Your task to perform on an android device: Search for vegetarian restaurants on Maps Image 0: 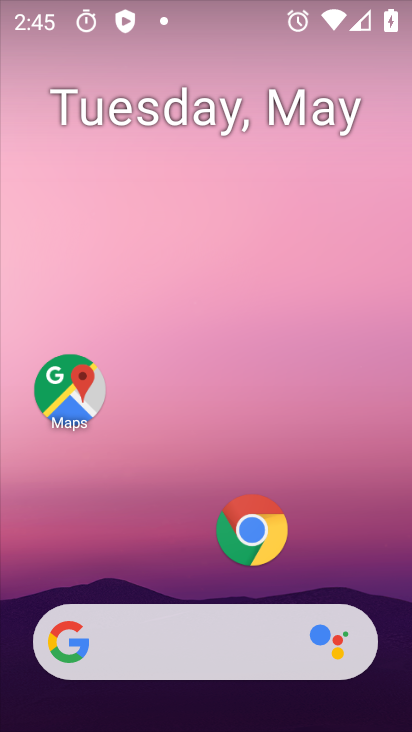
Step 0: click (70, 395)
Your task to perform on an android device: Search for vegetarian restaurants on Maps Image 1: 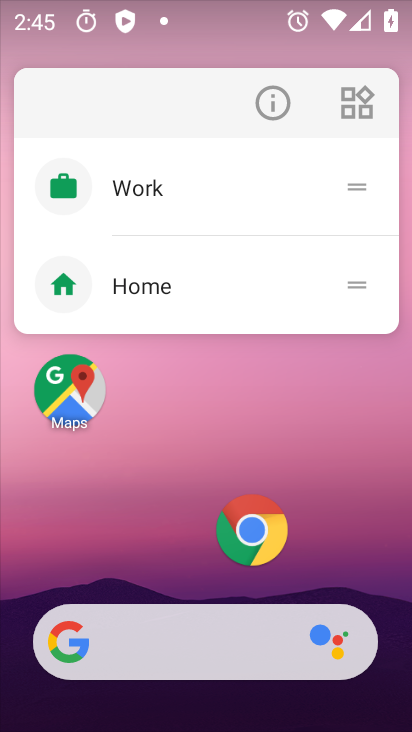
Step 1: click (67, 410)
Your task to perform on an android device: Search for vegetarian restaurants on Maps Image 2: 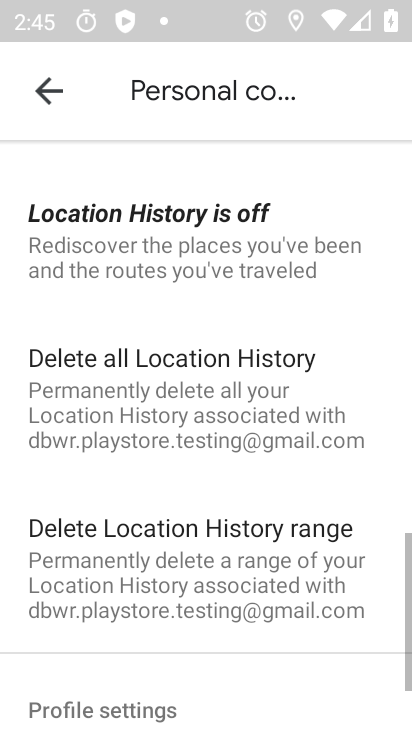
Step 2: click (65, 91)
Your task to perform on an android device: Search for vegetarian restaurants on Maps Image 3: 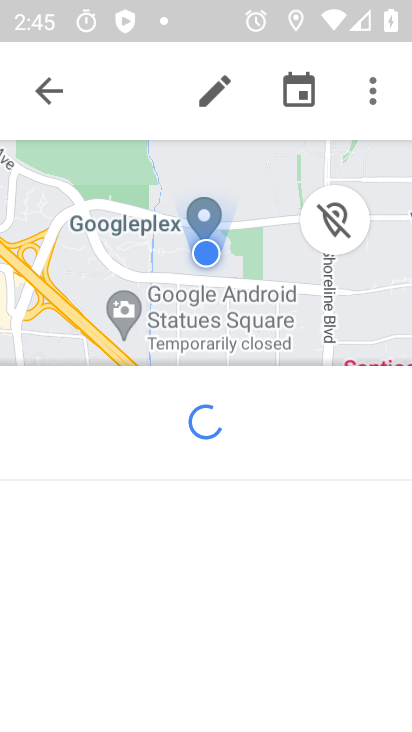
Step 3: click (68, 89)
Your task to perform on an android device: Search for vegetarian restaurants on Maps Image 4: 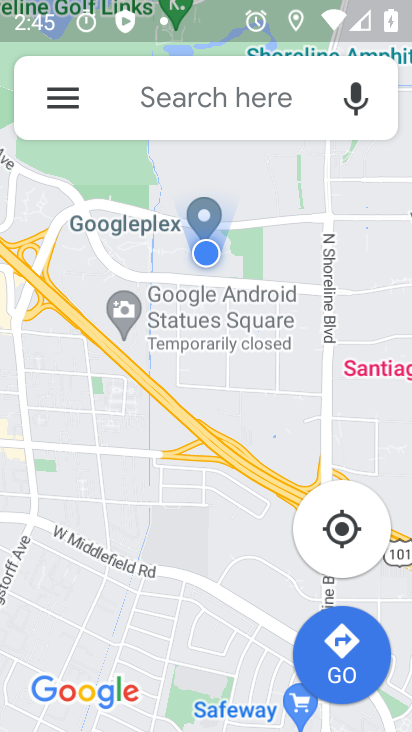
Step 4: click (129, 115)
Your task to perform on an android device: Search for vegetarian restaurants on Maps Image 5: 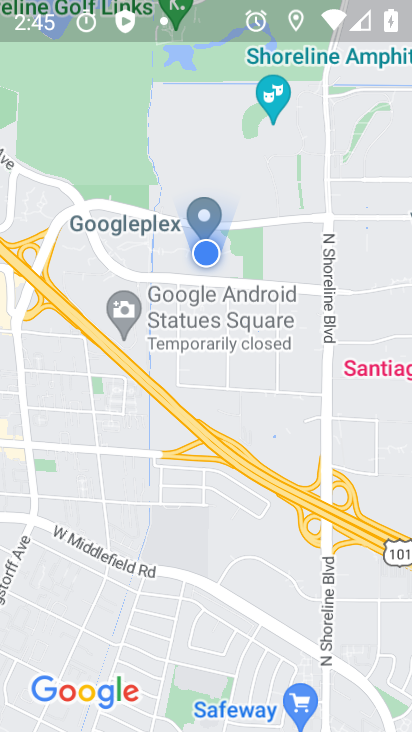
Step 5: drag from (276, 249) to (276, 377)
Your task to perform on an android device: Search for vegetarian restaurants on Maps Image 6: 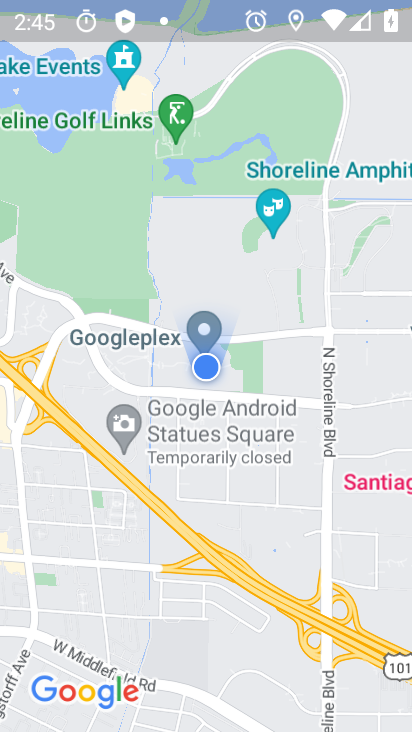
Step 6: click (141, 606)
Your task to perform on an android device: Search for vegetarian restaurants on Maps Image 7: 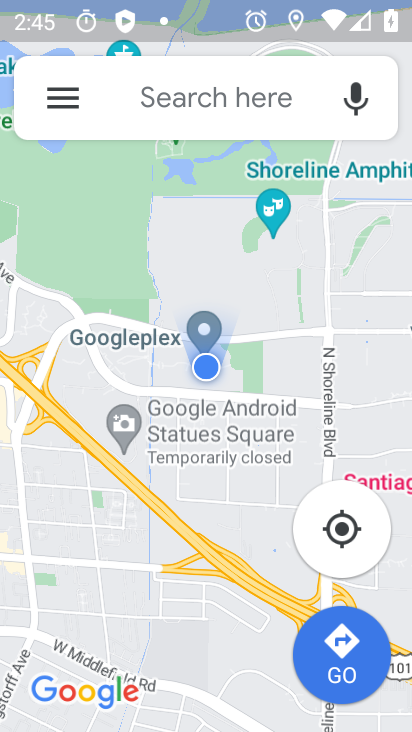
Step 7: click (142, 91)
Your task to perform on an android device: Search for vegetarian restaurants on Maps Image 8: 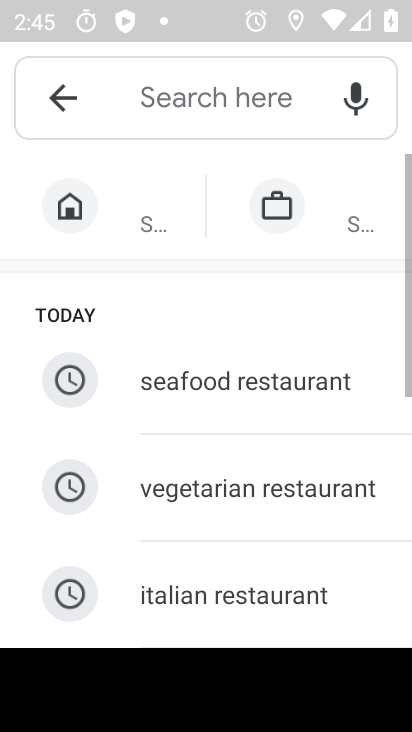
Step 8: click (218, 489)
Your task to perform on an android device: Search for vegetarian restaurants on Maps Image 9: 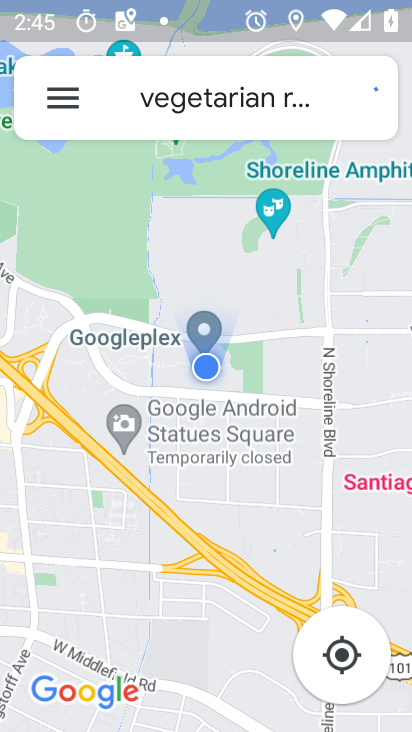
Step 9: task complete